Your task to perform on an android device: Open Reddit.com Image 0: 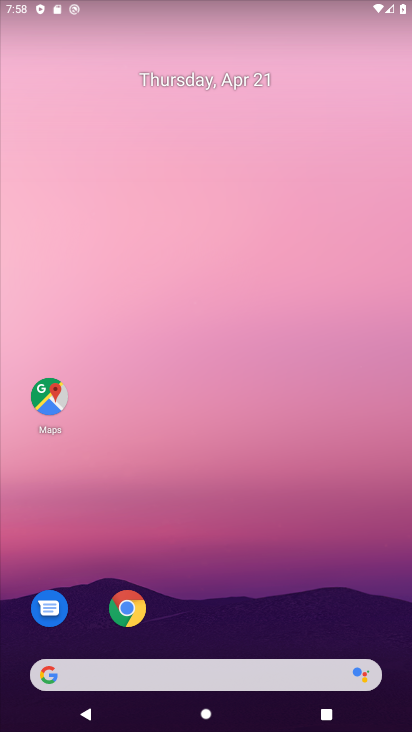
Step 0: click (123, 675)
Your task to perform on an android device: Open Reddit.com Image 1: 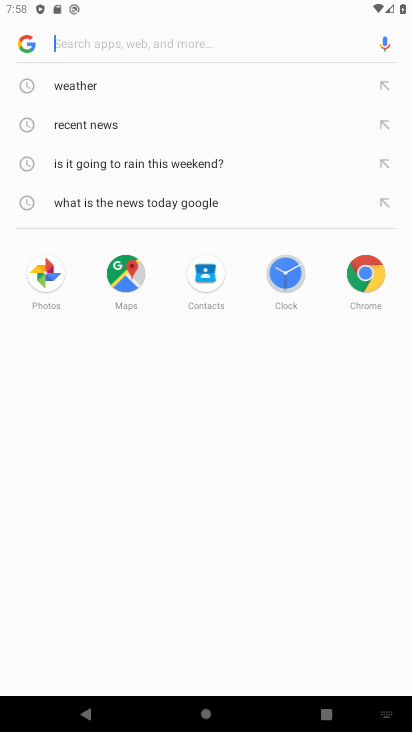
Step 1: type "reddit.com"
Your task to perform on an android device: Open Reddit.com Image 2: 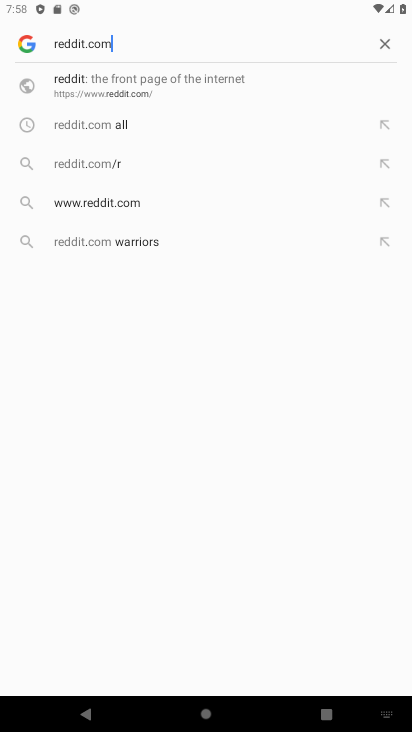
Step 2: click (113, 105)
Your task to perform on an android device: Open Reddit.com Image 3: 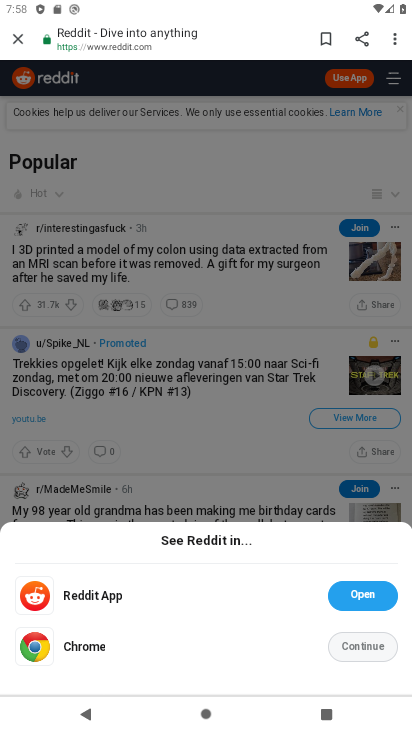
Step 3: task complete